Your task to perform on an android device: Open settings Image 0: 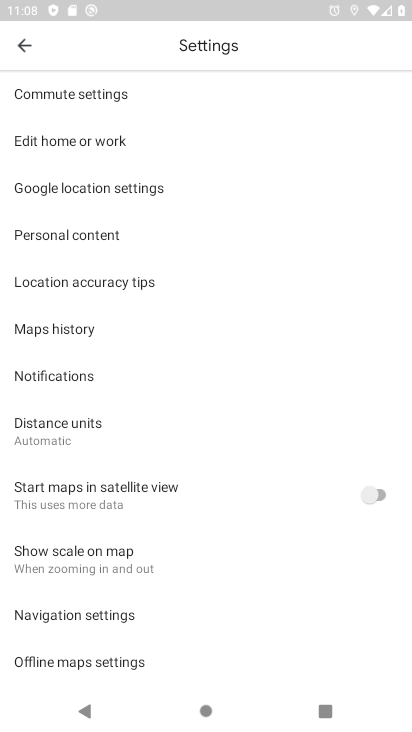
Step 0: press home button
Your task to perform on an android device: Open settings Image 1: 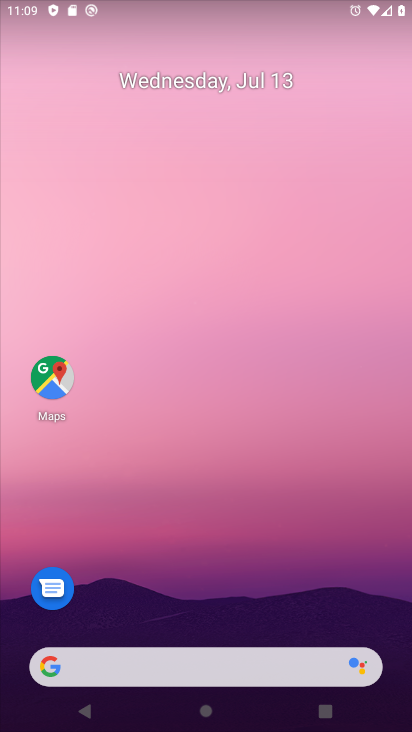
Step 1: drag from (266, 647) to (73, 348)
Your task to perform on an android device: Open settings Image 2: 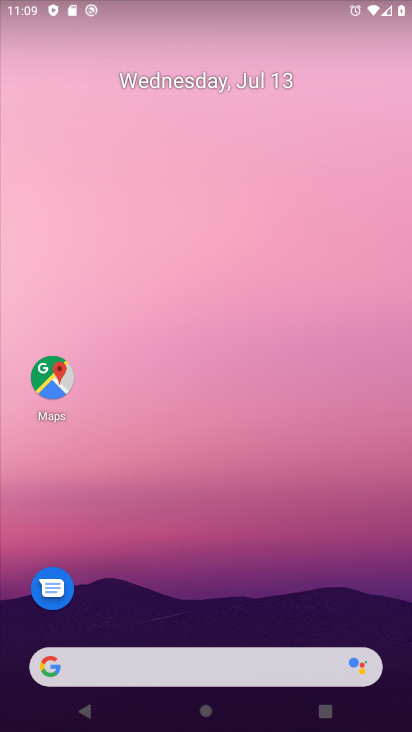
Step 2: drag from (262, 663) to (370, 10)
Your task to perform on an android device: Open settings Image 3: 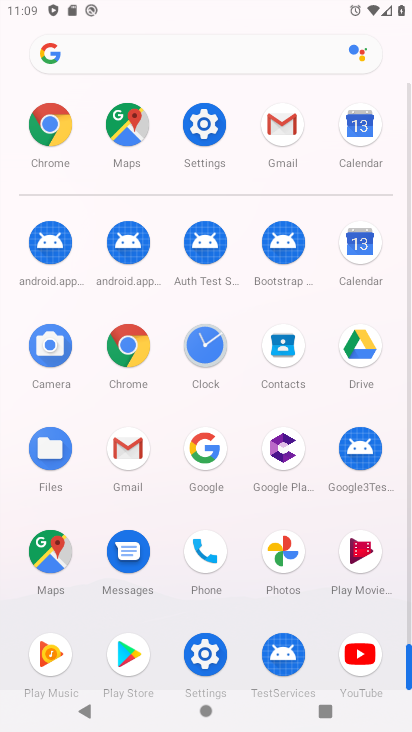
Step 3: click (208, 128)
Your task to perform on an android device: Open settings Image 4: 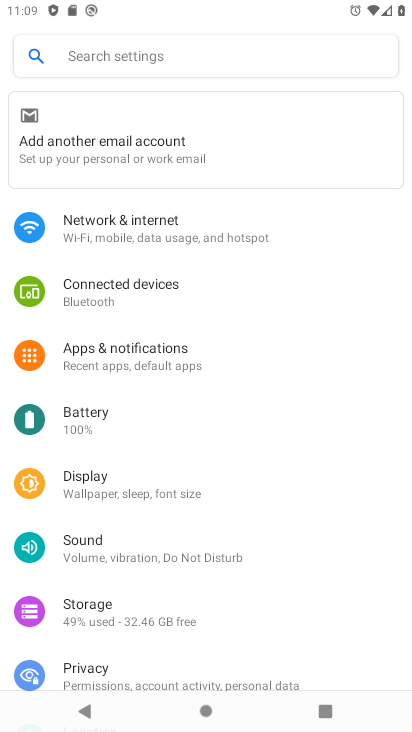
Step 4: task complete